Your task to perform on an android device: star an email in the gmail app Image 0: 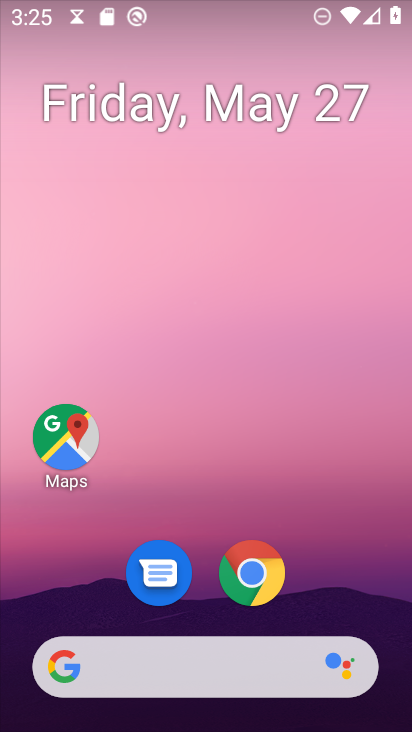
Step 0: drag from (320, 598) to (321, 1)
Your task to perform on an android device: star an email in the gmail app Image 1: 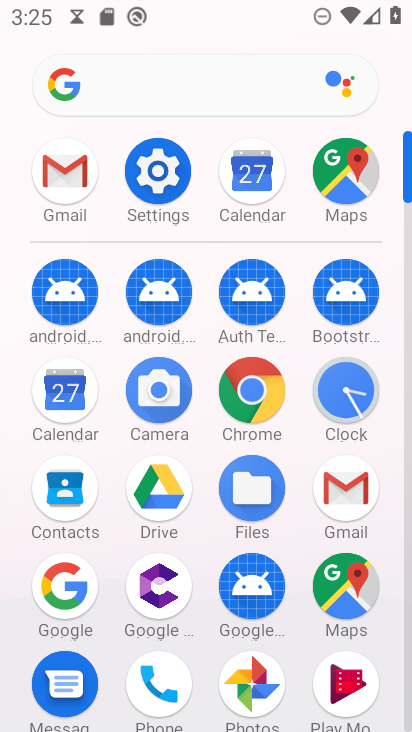
Step 1: click (337, 480)
Your task to perform on an android device: star an email in the gmail app Image 2: 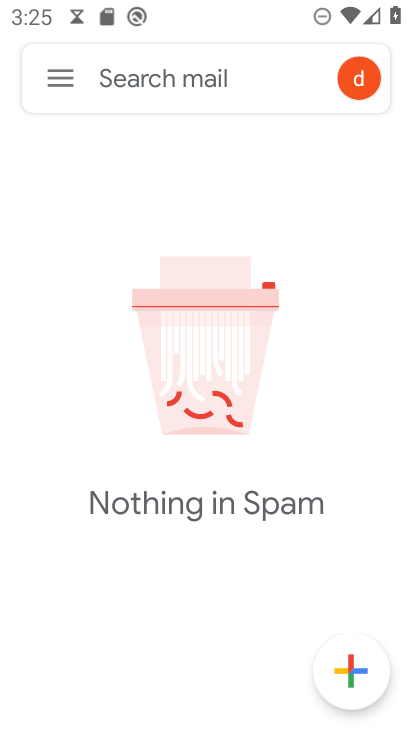
Step 2: click (54, 82)
Your task to perform on an android device: star an email in the gmail app Image 3: 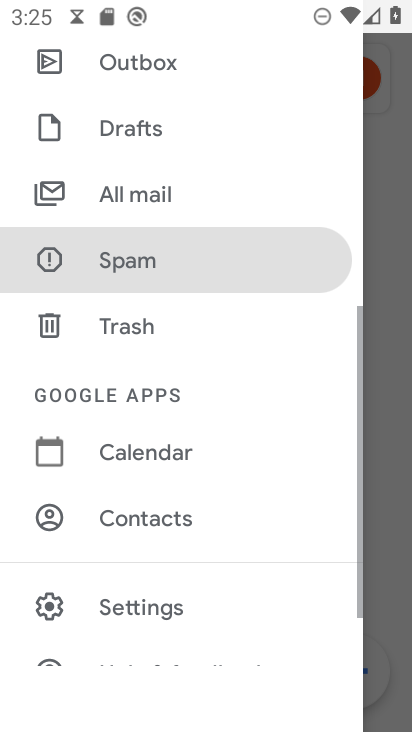
Step 3: click (205, 192)
Your task to perform on an android device: star an email in the gmail app Image 4: 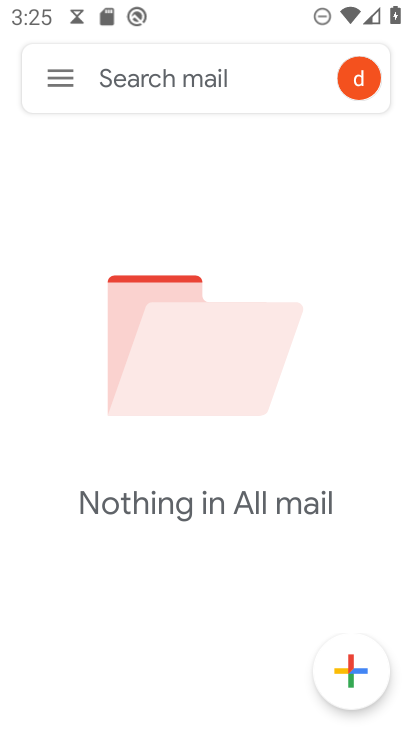
Step 4: task complete